Your task to perform on an android device: Open Google Chrome Image 0: 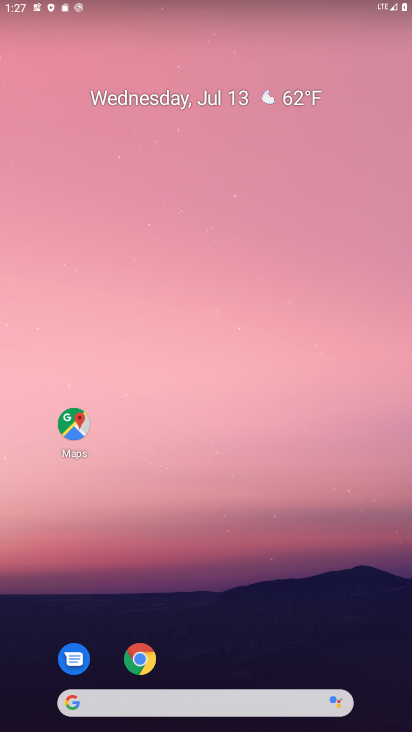
Step 0: drag from (222, 729) to (199, 87)
Your task to perform on an android device: Open Google Chrome Image 1: 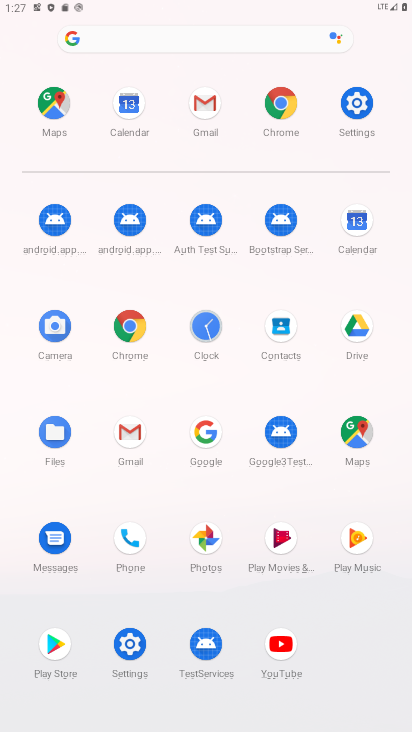
Step 1: click (126, 327)
Your task to perform on an android device: Open Google Chrome Image 2: 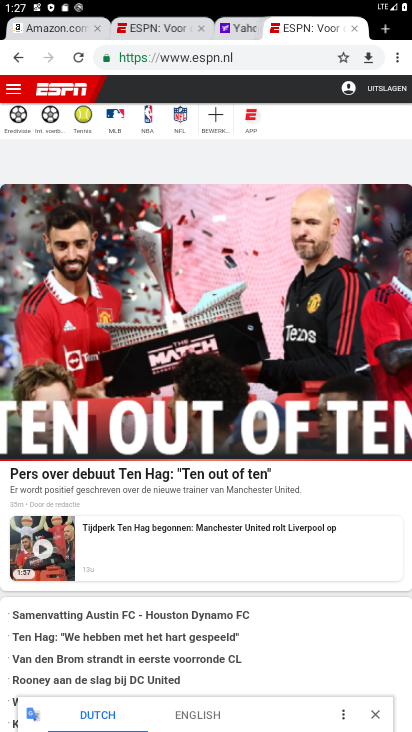
Step 2: task complete